Your task to perform on an android device: turn off translation in the chrome app Image 0: 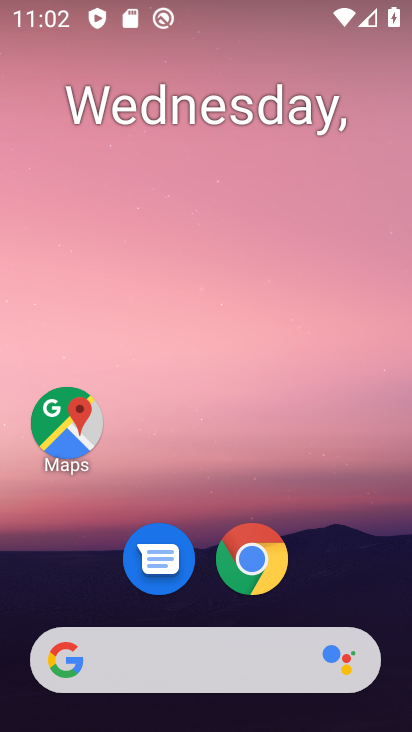
Step 0: click (263, 552)
Your task to perform on an android device: turn off translation in the chrome app Image 1: 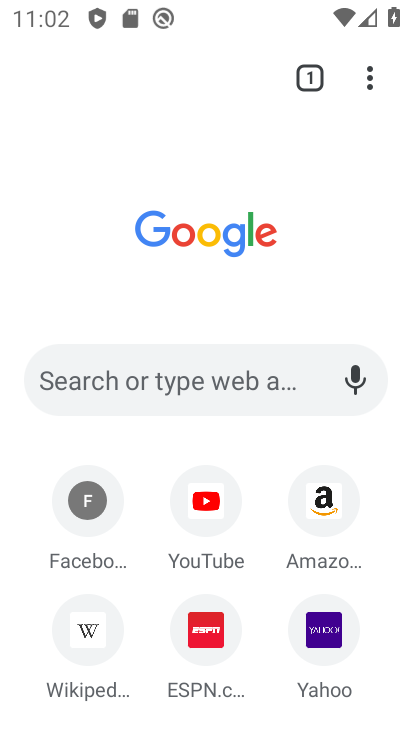
Step 1: drag from (359, 78) to (134, 634)
Your task to perform on an android device: turn off translation in the chrome app Image 2: 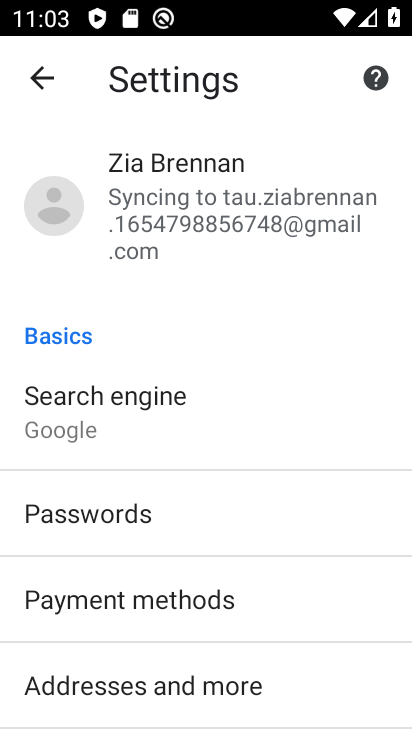
Step 2: drag from (126, 628) to (157, 66)
Your task to perform on an android device: turn off translation in the chrome app Image 3: 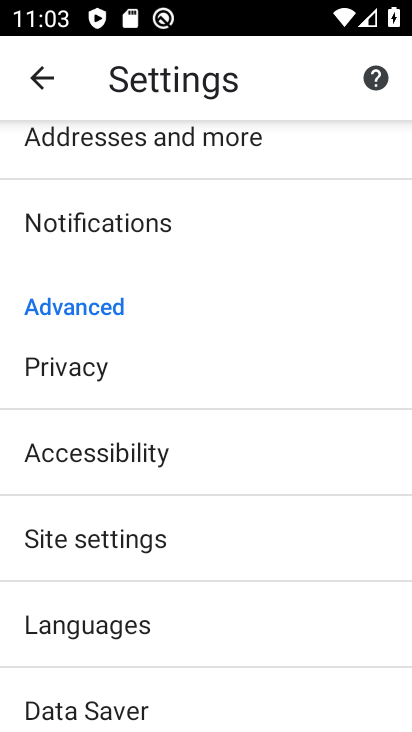
Step 3: click (103, 621)
Your task to perform on an android device: turn off translation in the chrome app Image 4: 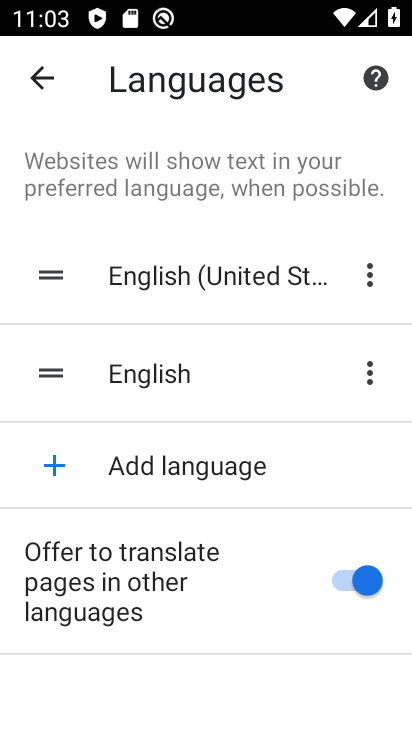
Step 4: click (374, 583)
Your task to perform on an android device: turn off translation in the chrome app Image 5: 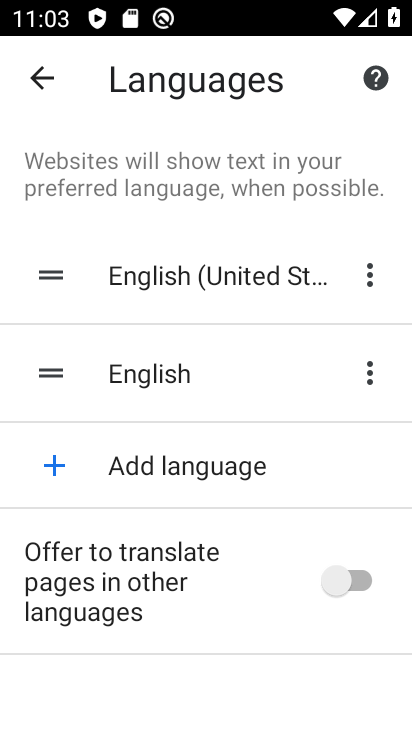
Step 5: task complete